Your task to perform on an android device: Open the phone app and click the voicemail tab. Image 0: 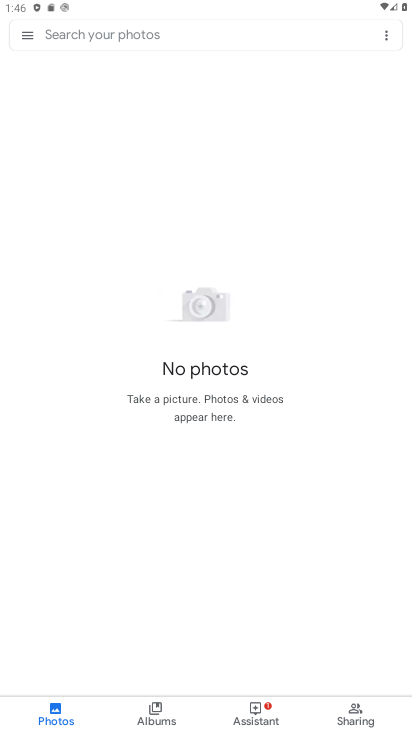
Step 0: press home button
Your task to perform on an android device: Open the phone app and click the voicemail tab. Image 1: 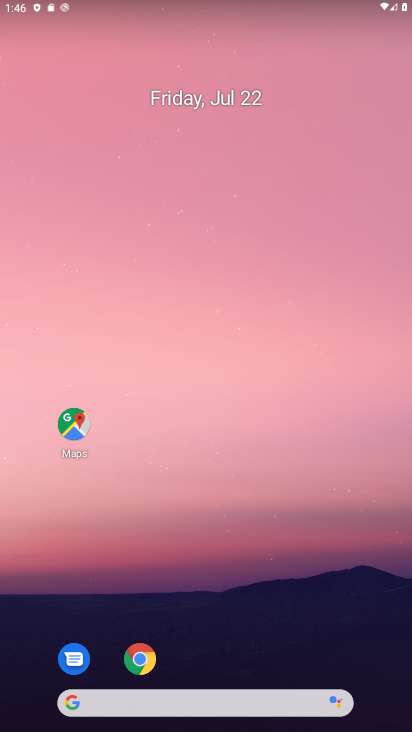
Step 1: drag from (278, 628) to (269, 0)
Your task to perform on an android device: Open the phone app and click the voicemail tab. Image 2: 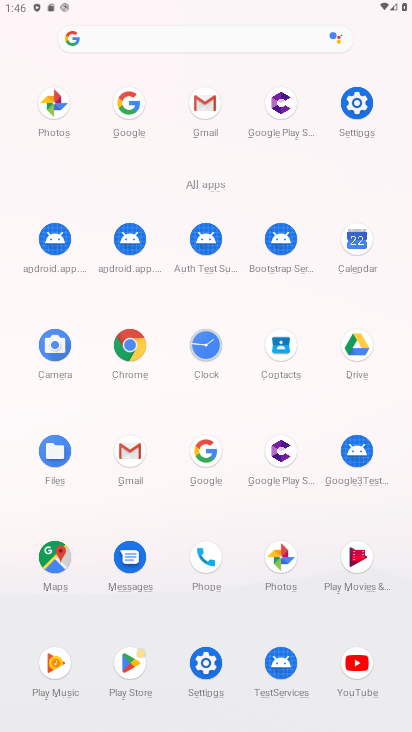
Step 2: click (201, 563)
Your task to perform on an android device: Open the phone app and click the voicemail tab. Image 3: 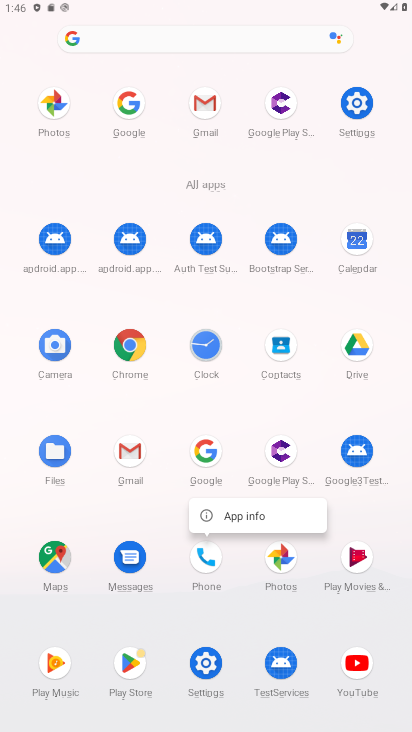
Step 3: click (209, 566)
Your task to perform on an android device: Open the phone app and click the voicemail tab. Image 4: 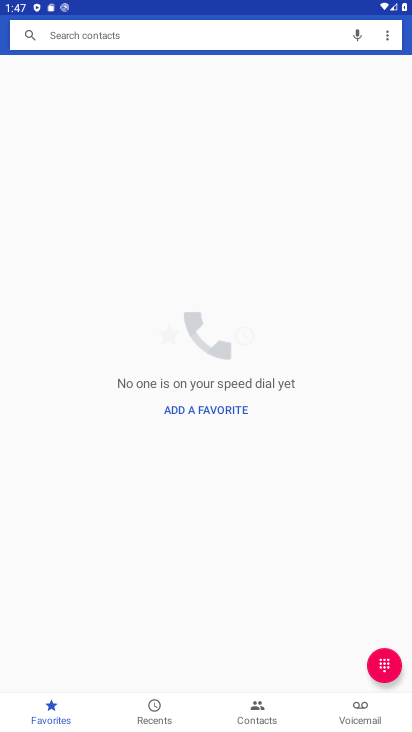
Step 4: click (364, 701)
Your task to perform on an android device: Open the phone app and click the voicemail tab. Image 5: 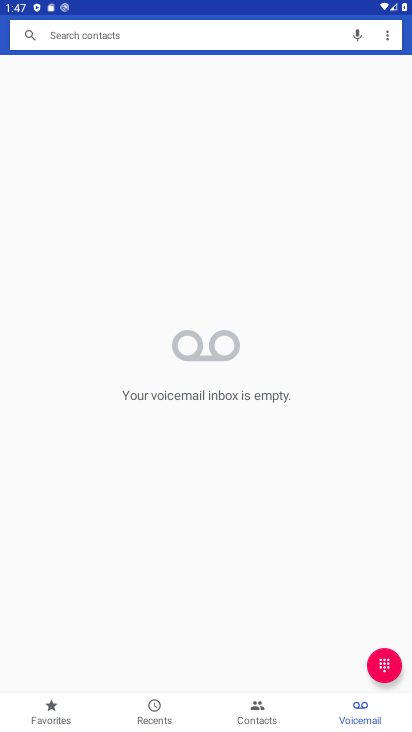
Step 5: task complete